Your task to perform on an android device: uninstall "Google Find My Device" Image 0: 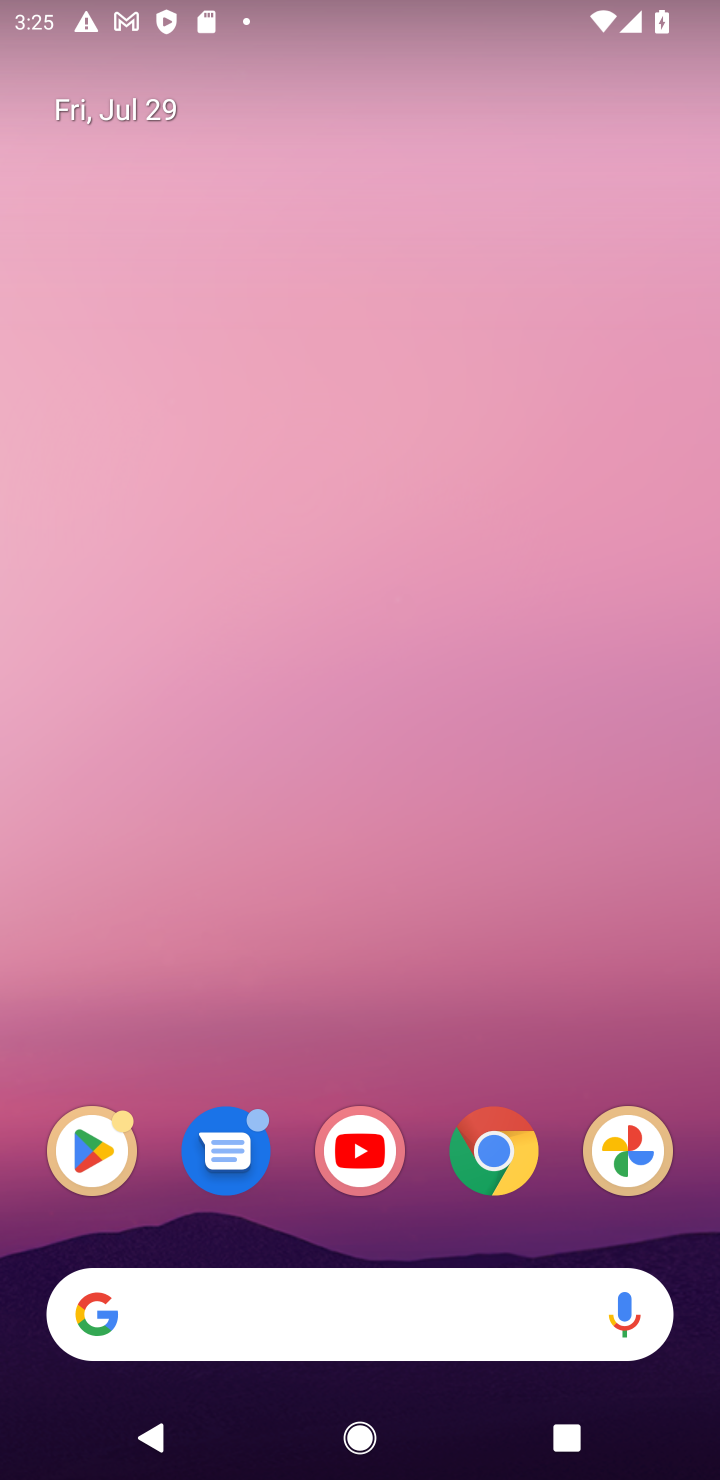
Step 0: drag from (659, 1030) to (592, 177)
Your task to perform on an android device: uninstall "Google Find My Device" Image 1: 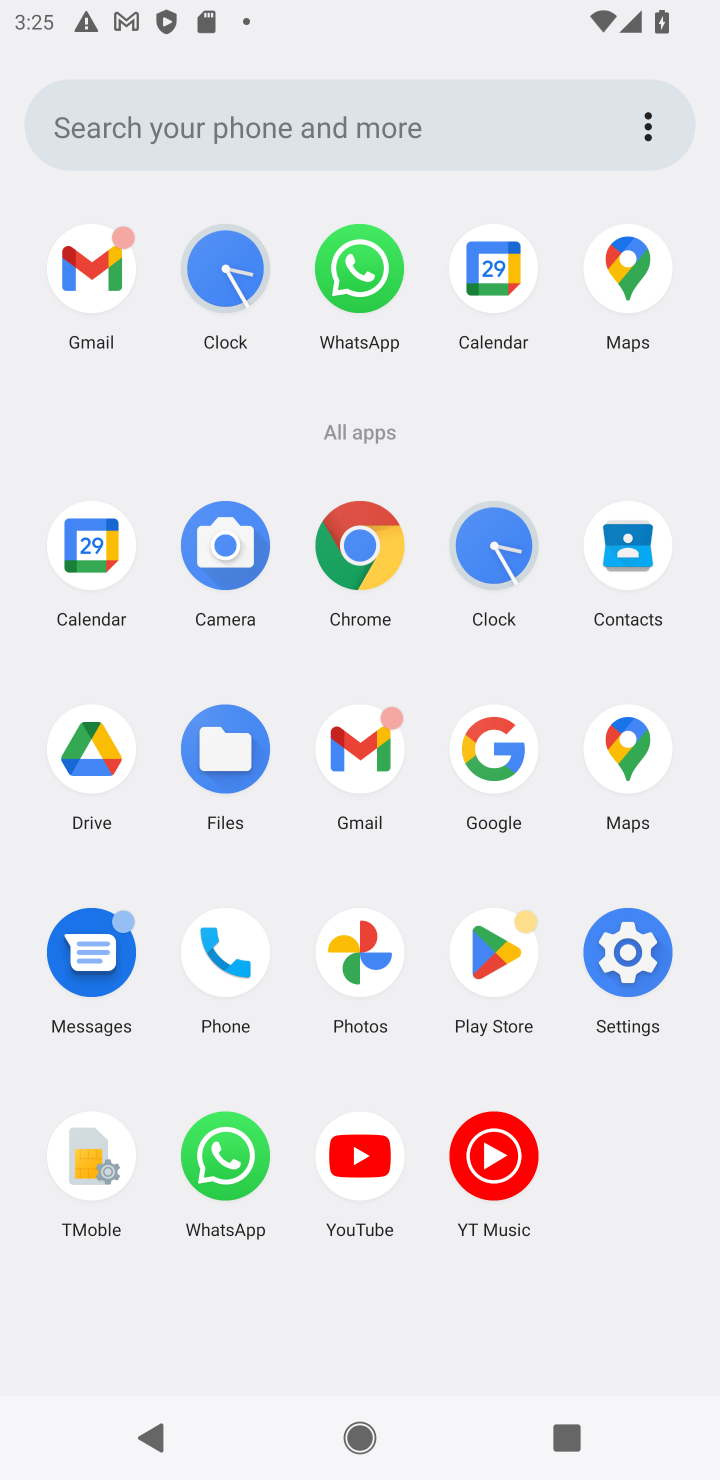
Step 1: click (492, 978)
Your task to perform on an android device: uninstall "Google Find My Device" Image 2: 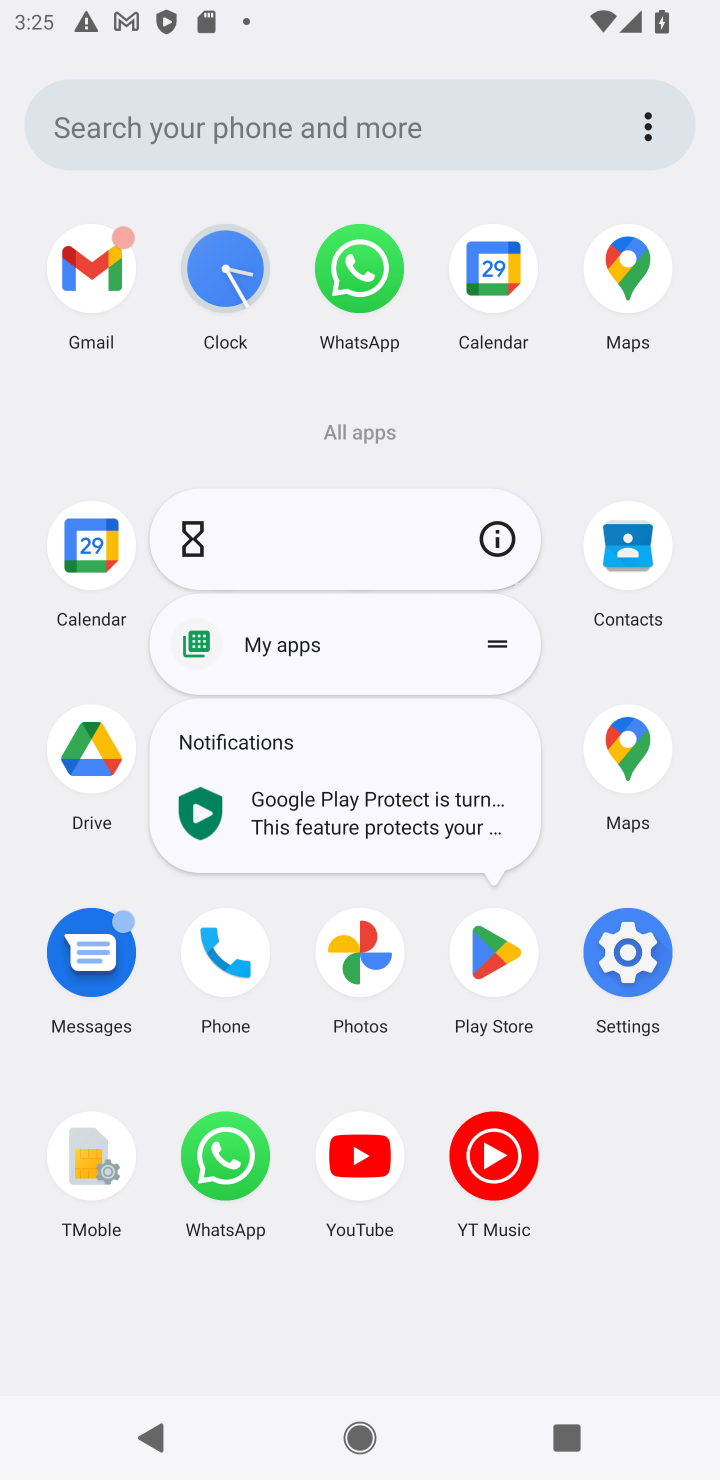
Step 2: click (492, 978)
Your task to perform on an android device: uninstall "Google Find My Device" Image 3: 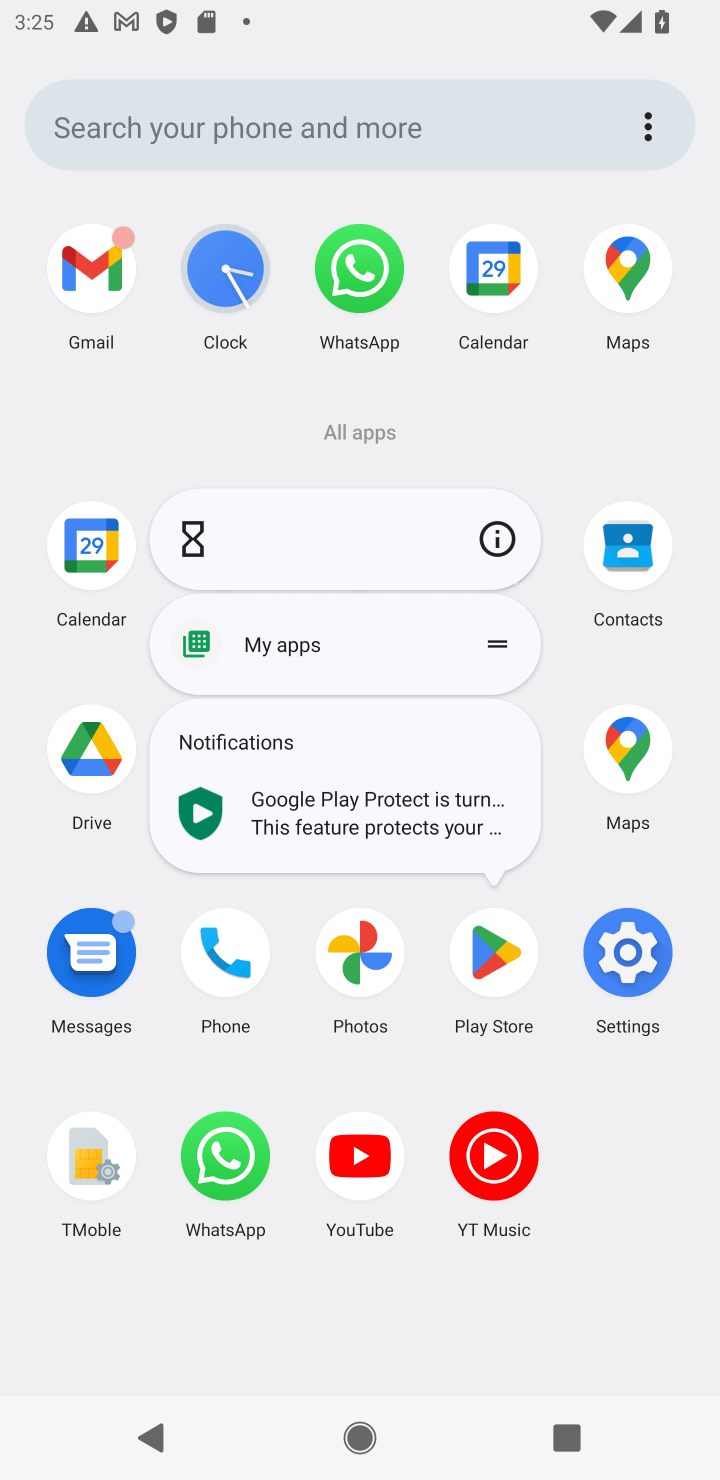
Step 3: click (492, 978)
Your task to perform on an android device: uninstall "Google Find My Device" Image 4: 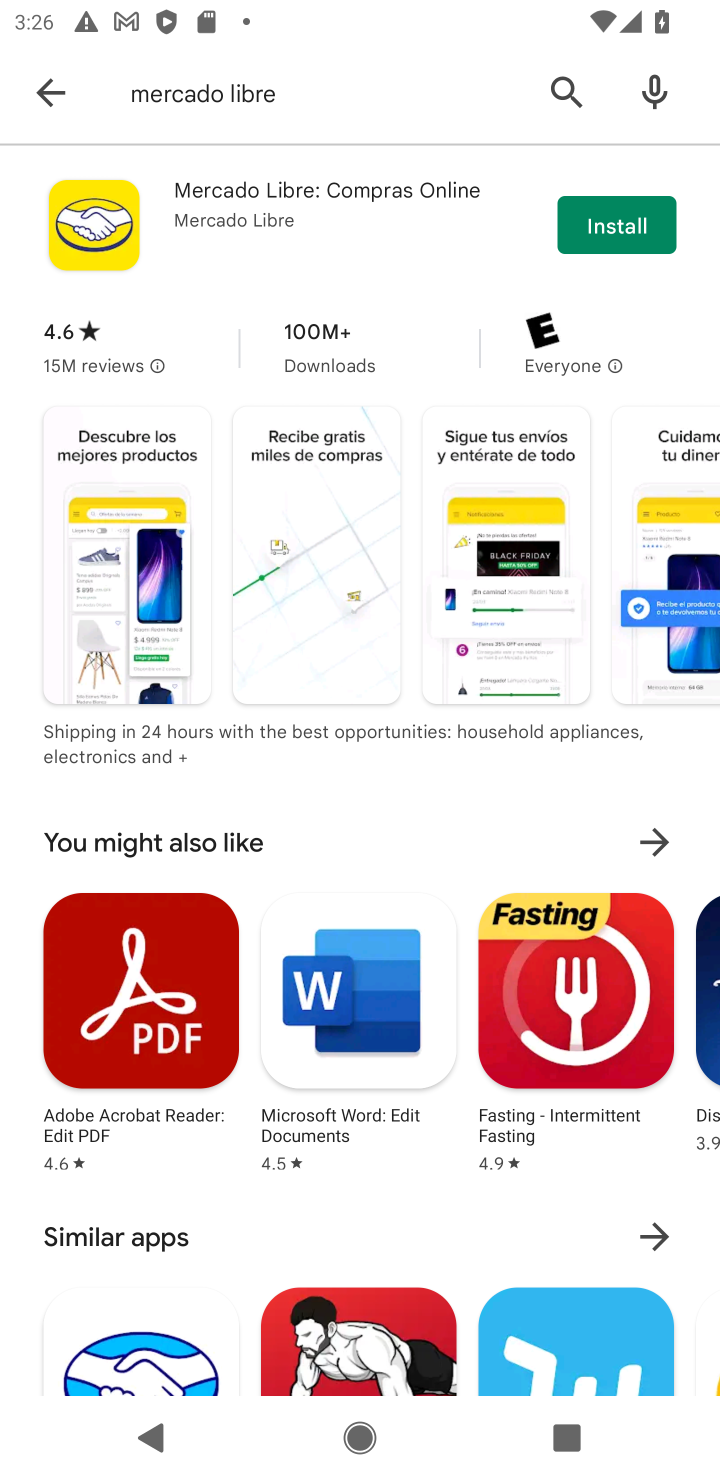
Step 4: click (585, 97)
Your task to perform on an android device: uninstall "Google Find My Device" Image 5: 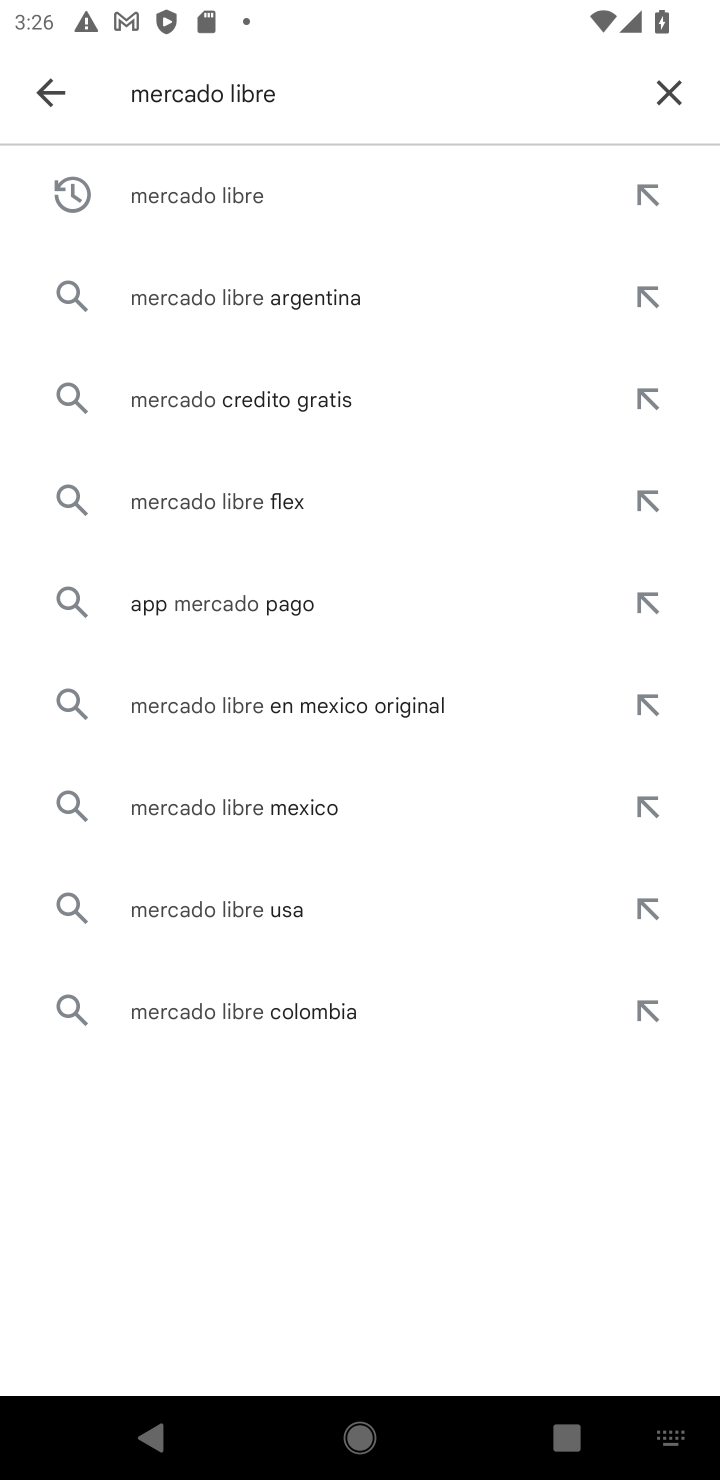
Step 5: click (669, 85)
Your task to perform on an android device: uninstall "Google Find My Device" Image 6: 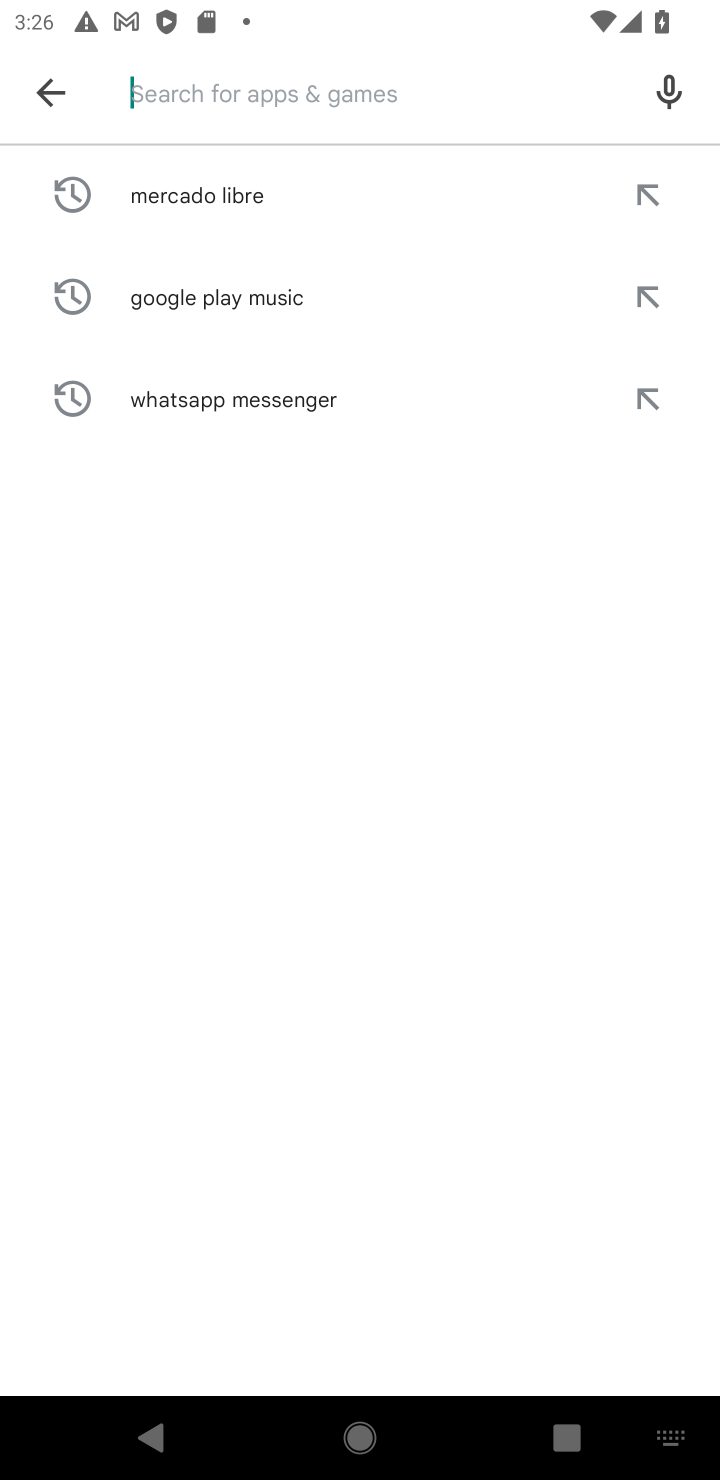
Step 6: type "Google Find My Device"
Your task to perform on an android device: uninstall "Google Find My Device" Image 7: 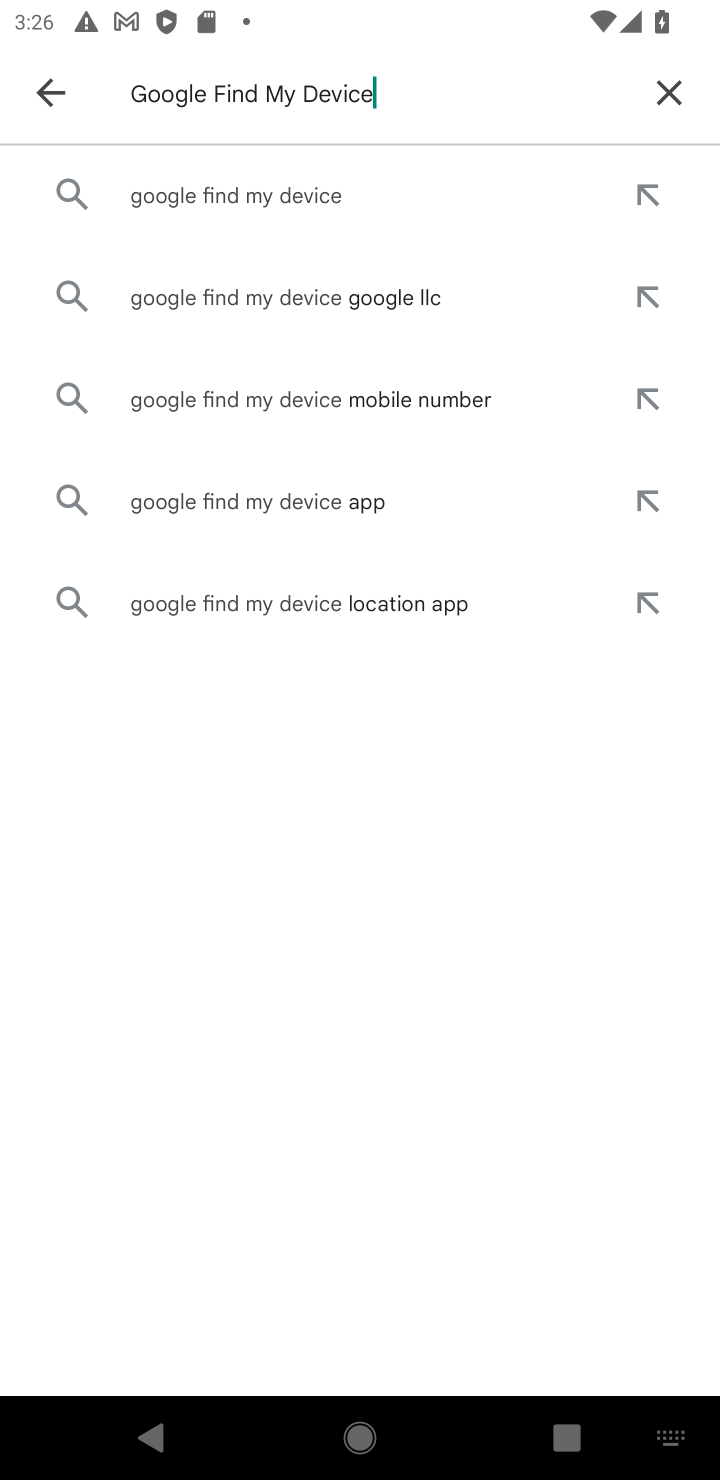
Step 7: click (335, 177)
Your task to perform on an android device: uninstall "Google Find My Device" Image 8: 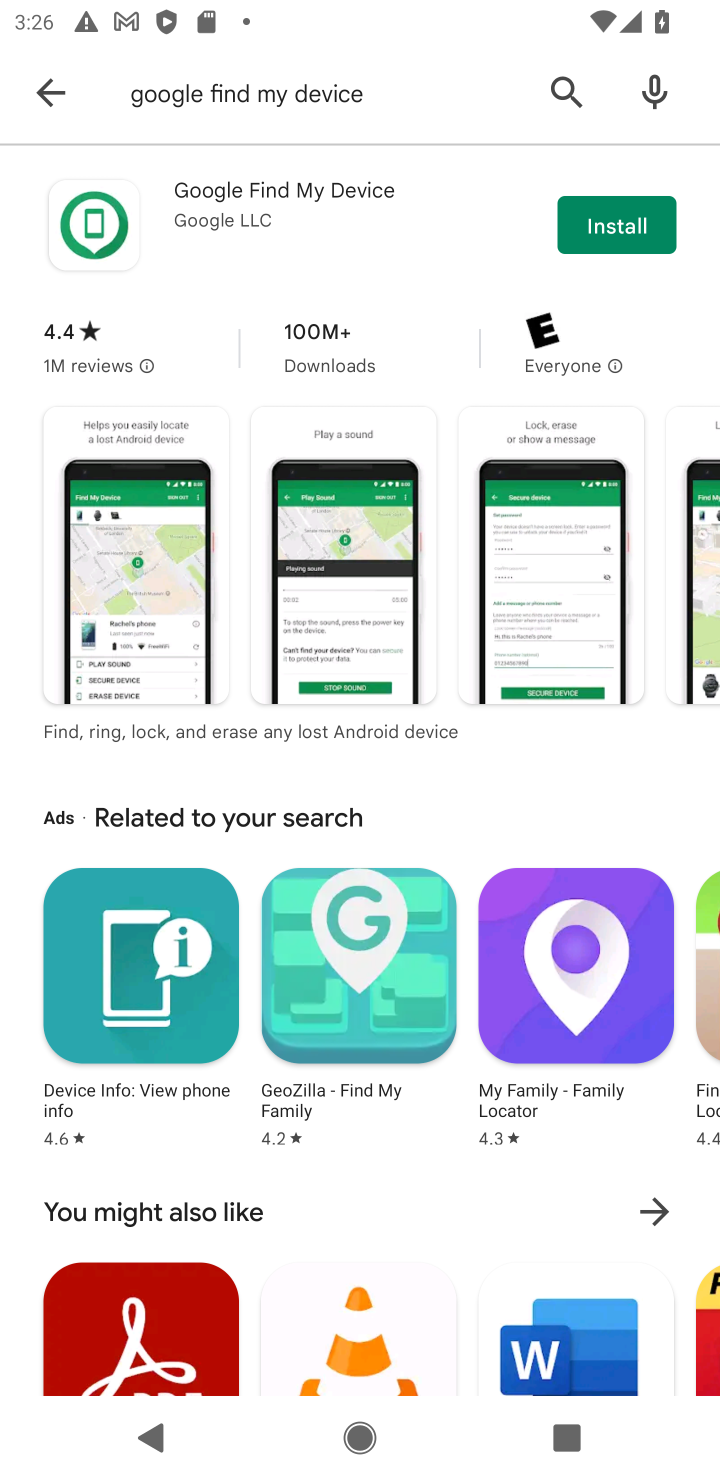
Step 8: task complete